Your task to perform on an android device: make emails show in primary in the gmail app Image 0: 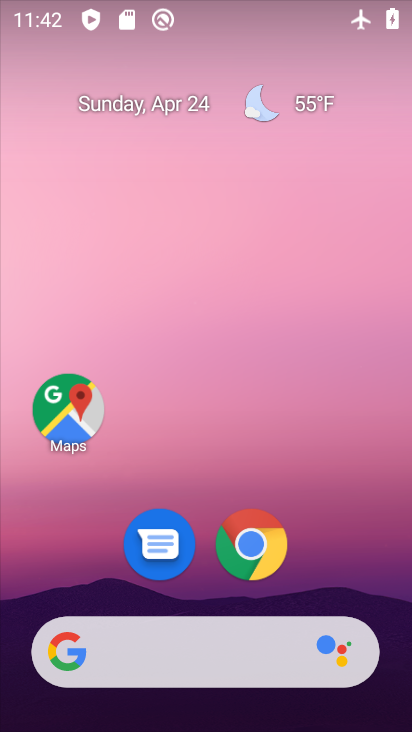
Step 0: drag from (291, 408) to (150, 84)
Your task to perform on an android device: make emails show in primary in the gmail app Image 1: 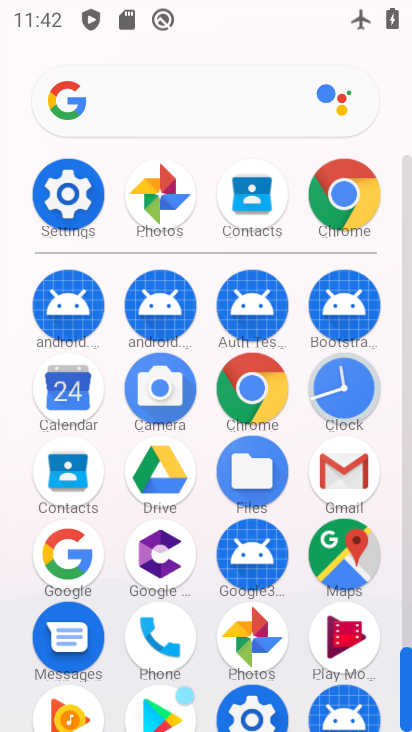
Step 1: click (341, 479)
Your task to perform on an android device: make emails show in primary in the gmail app Image 2: 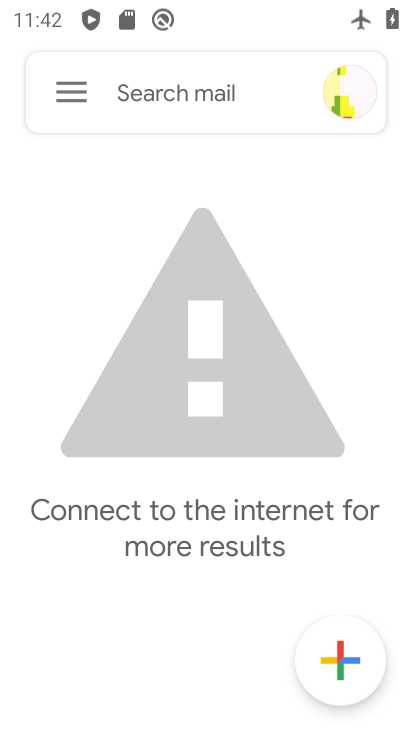
Step 2: click (60, 90)
Your task to perform on an android device: make emails show in primary in the gmail app Image 3: 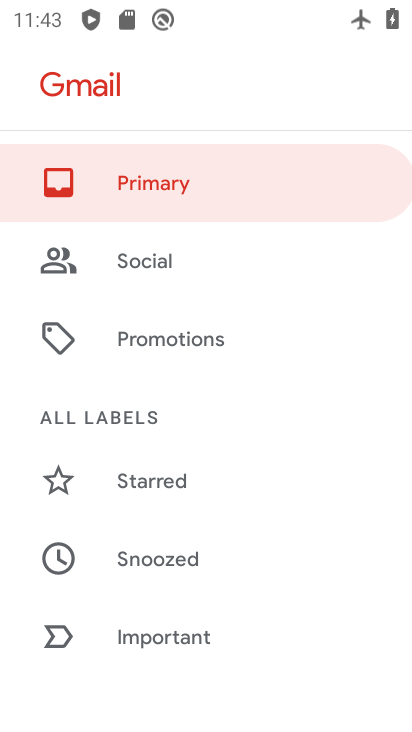
Step 3: task complete